Your task to perform on an android device: change notification settings in the gmail app Image 0: 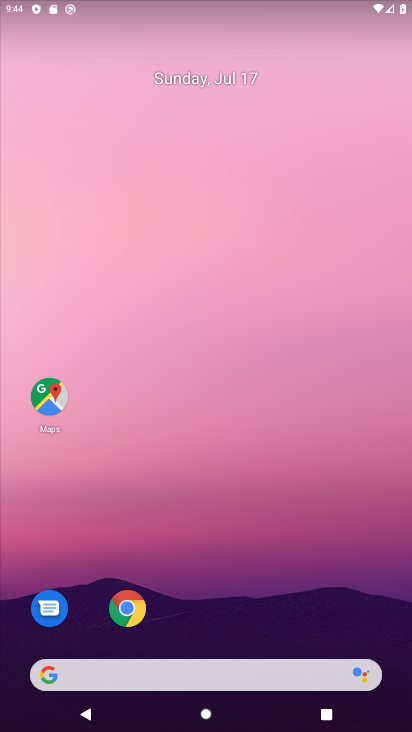
Step 0: drag from (387, 620) to (337, 127)
Your task to perform on an android device: change notification settings in the gmail app Image 1: 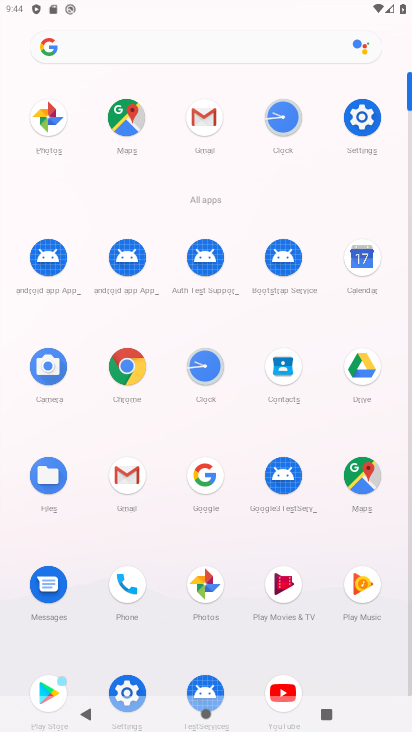
Step 1: click (125, 477)
Your task to perform on an android device: change notification settings in the gmail app Image 2: 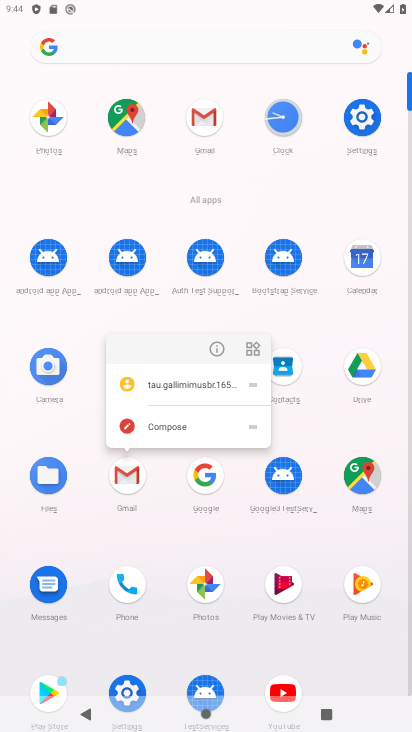
Step 2: click (125, 473)
Your task to perform on an android device: change notification settings in the gmail app Image 3: 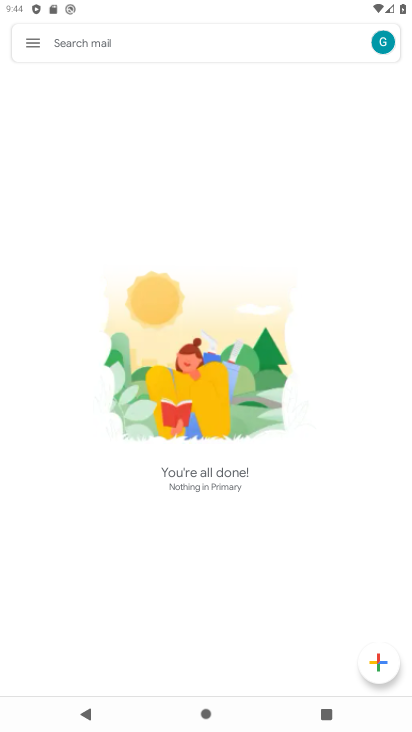
Step 3: click (30, 41)
Your task to perform on an android device: change notification settings in the gmail app Image 4: 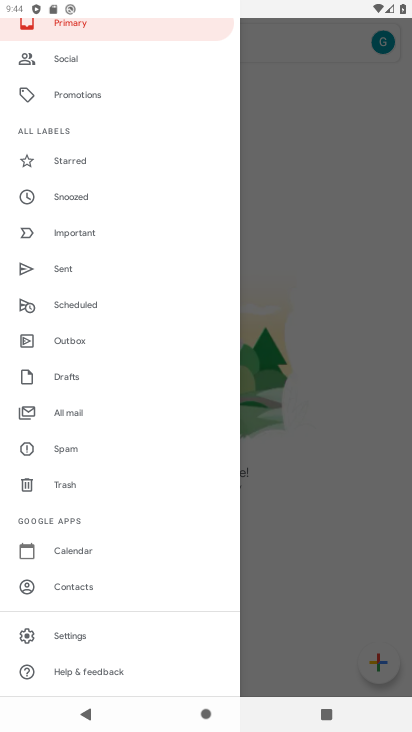
Step 4: click (60, 640)
Your task to perform on an android device: change notification settings in the gmail app Image 5: 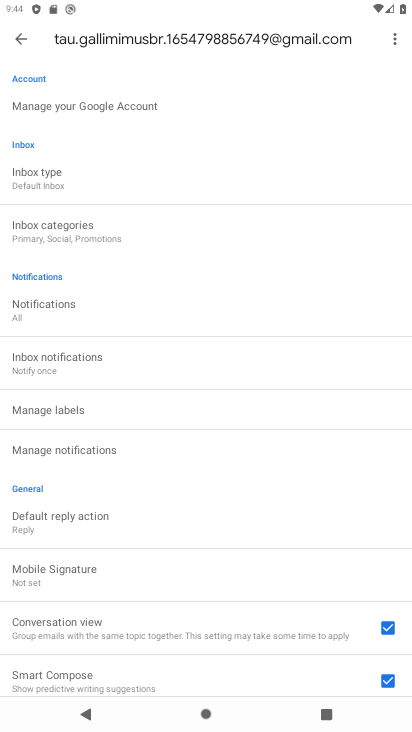
Step 5: click (57, 448)
Your task to perform on an android device: change notification settings in the gmail app Image 6: 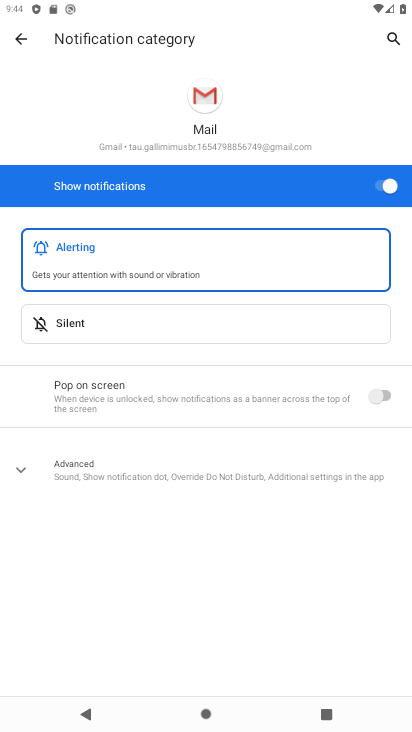
Step 6: click (377, 185)
Your task to perform on an android device: change notification settings in the gmail app Image 7: 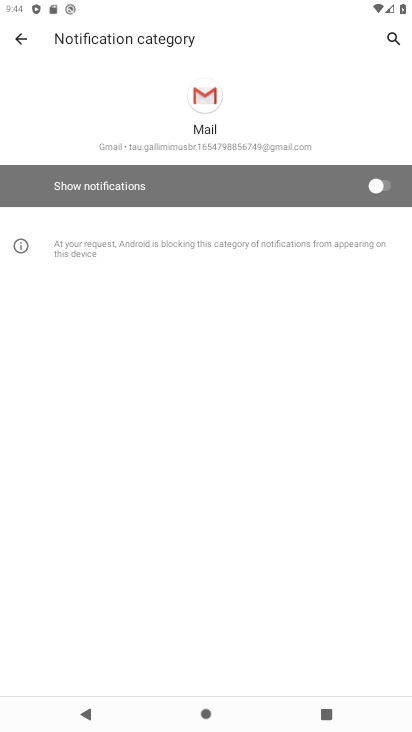
Step 7: task complete